Your task to perform on an android device: What's the weather? Image 0: 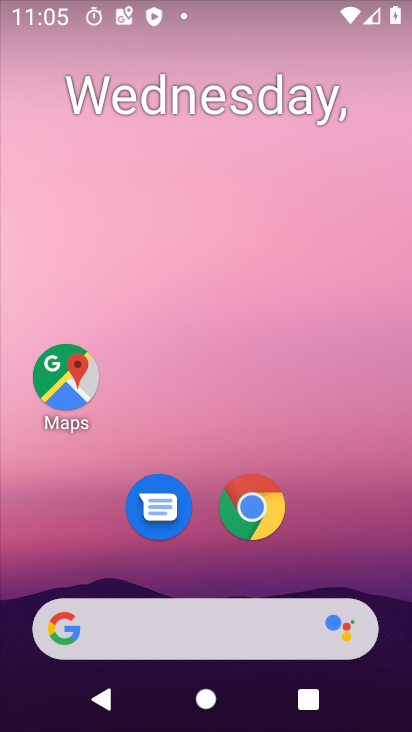
Step 0: drag from (238, 705) to (233, 94)
Your task to perform on an android device: What's the weather? Image 1: 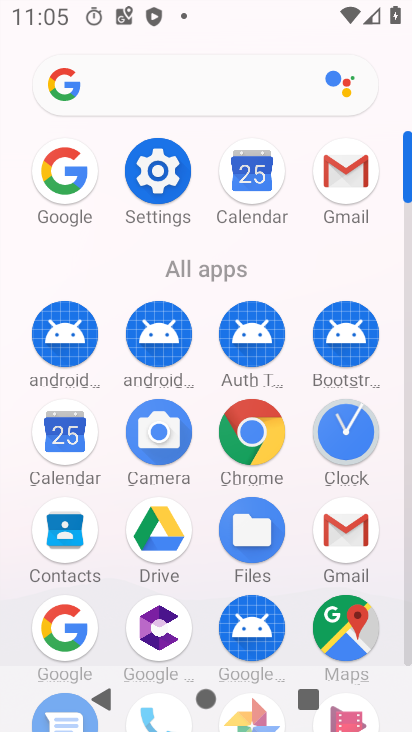
Step 1: click (70, 622)
Your task to perform on an android device: What's the weather? Image 2: 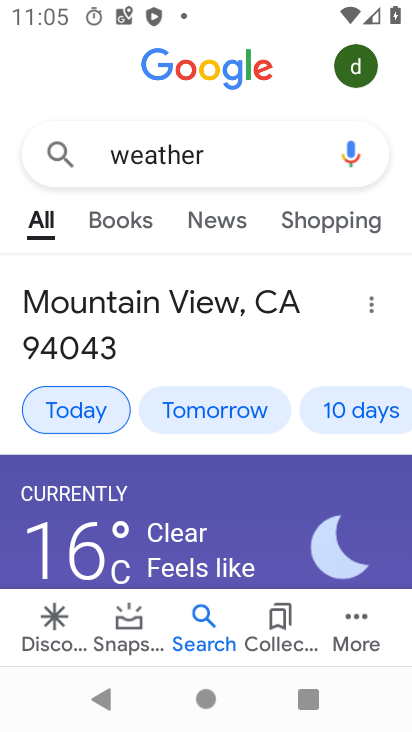
Step 2: click (89, 410)
Your task to perform on an android device: What's the weather? Image 3: 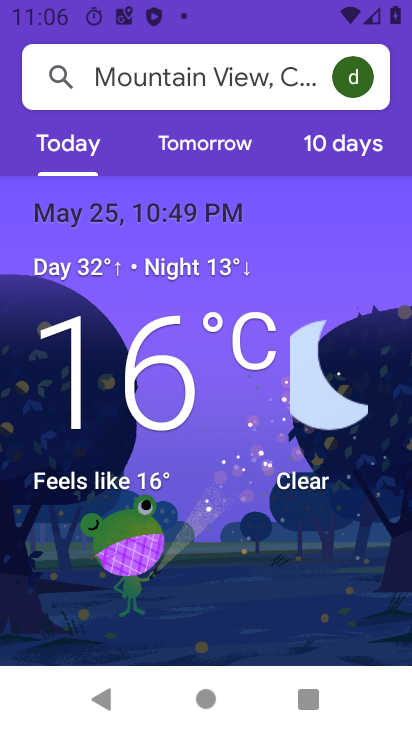
Step 3: task complete